Your task to perform on an android device: See recent photos Image 0: 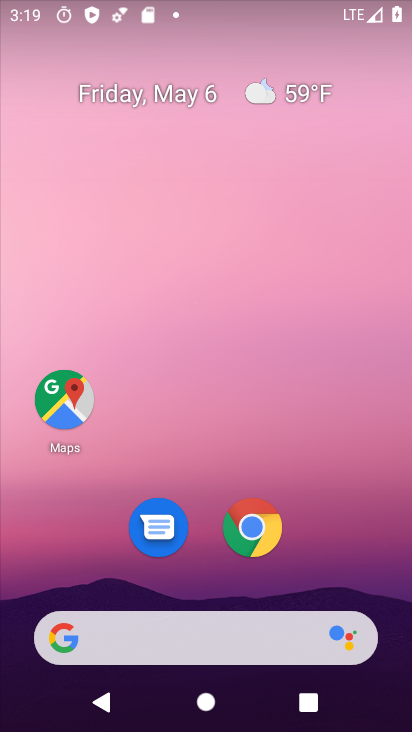
Step 0: drag from (303, 201) to (297, 142)
Your task to perform on an android device: See recent photos Image 1: 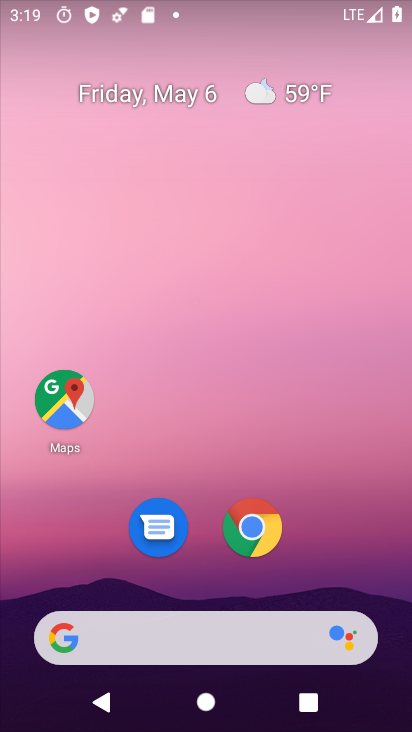
Step 1: drag from (270, 286) to (237, 73)
Your task to perform on an android device: See recent photos Image 2: 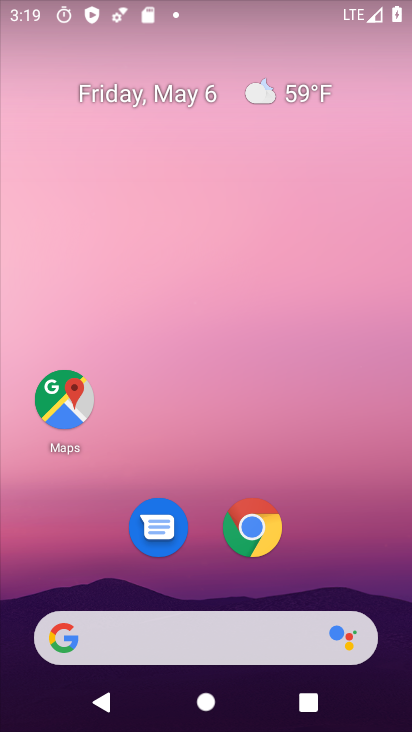
Step 2: drag from (281, 519) to (232, 97)
Your task to perform on an android device: See recent photos Image 3: 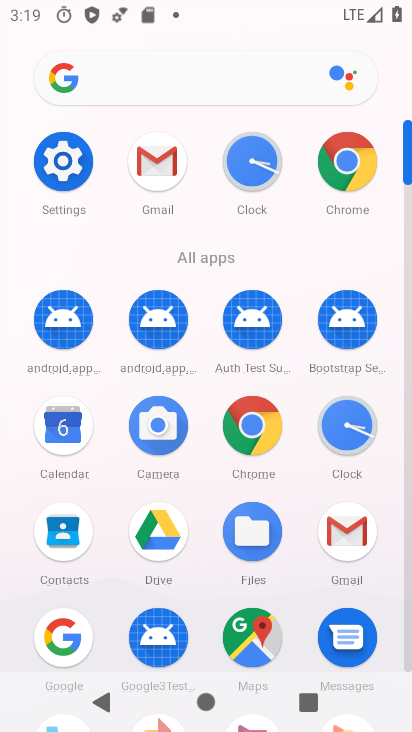
Step 3: drag from (204, 614) to (228, 53)
Your task to perform on an android device: See recent photos Image 4: 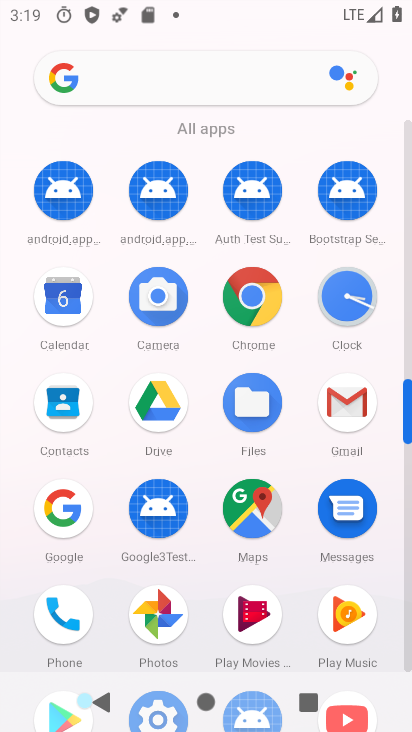
Step 4: click (150, 617)
Your task to perform on an android device: See recent photos Image 5: 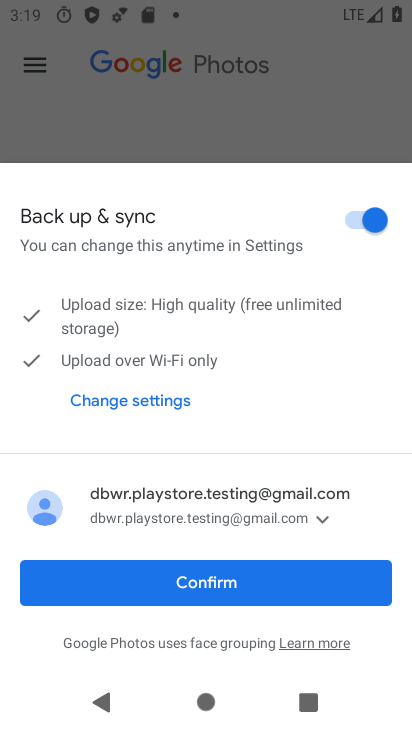
Step 5: click (217, 580)
Your task to perform on an android device: See recent photos Image 6: 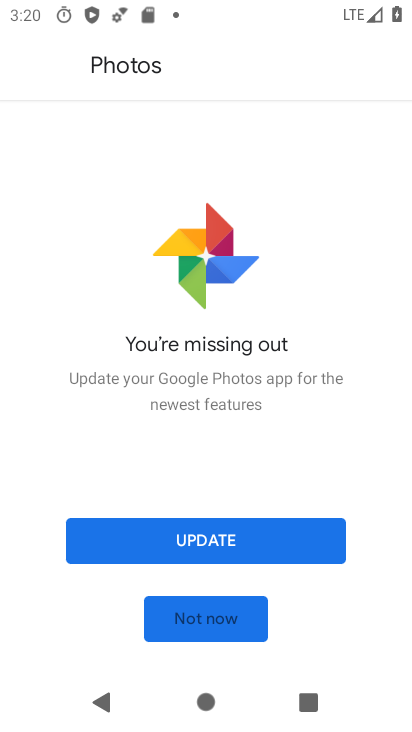
Step 6: click (186, 536)
Your task to perform on an android device: See recent photos Image 7: 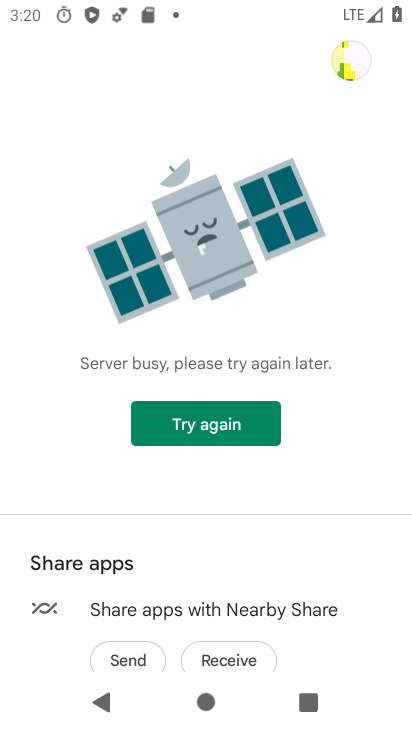
Step 7: click (207, 434)
Your task to perform on an android device: See recent photos Image 8: 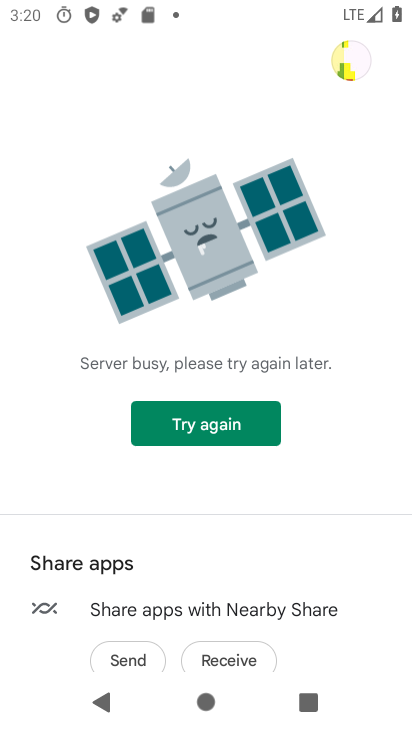
Step 8: task complete